Your task to perform on an android device: check data usage Image 0: 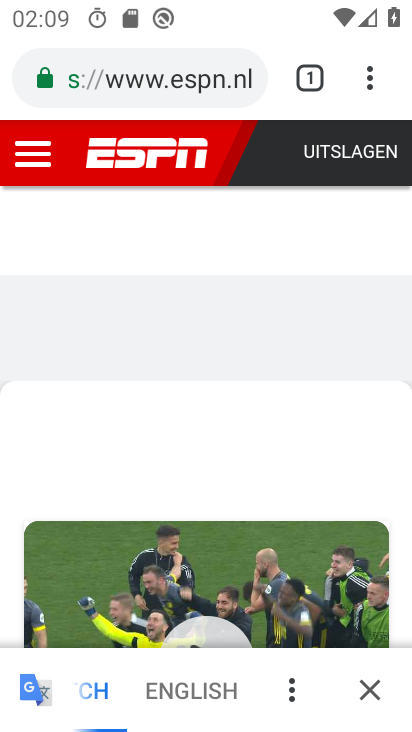
Step 0: press home button
Your task to perform on an android device: check data usage Image 1: 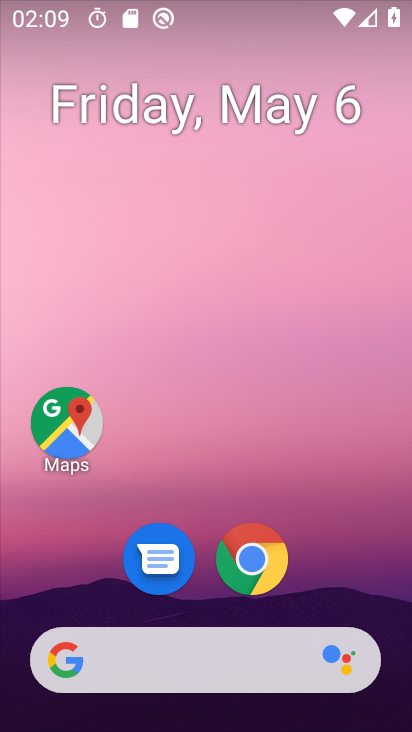
Step 1: drag from (246, 620) to (231, 3)
Your task to perform on an android device: check data usage Image 2: 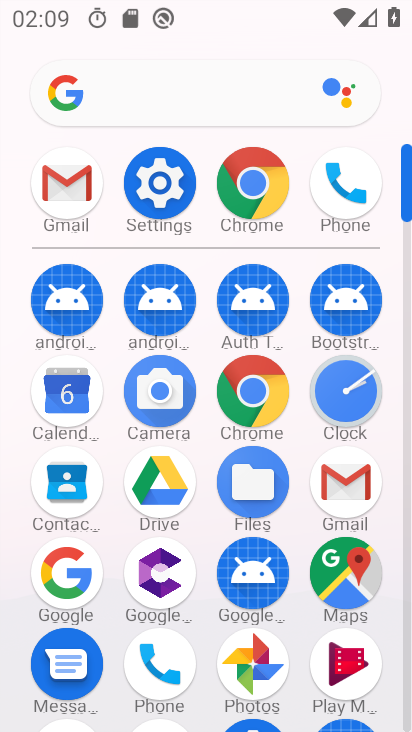
Step 2: click (156, 184)
Your task to perform on an android device: check data usage Image 3: 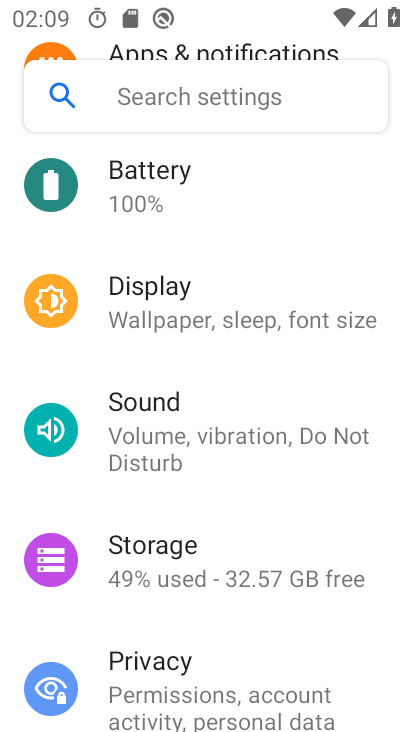
Step 3: drag from (199, 194) to (199, 519)
Your task to perform on an android device: check data usage Image 4: 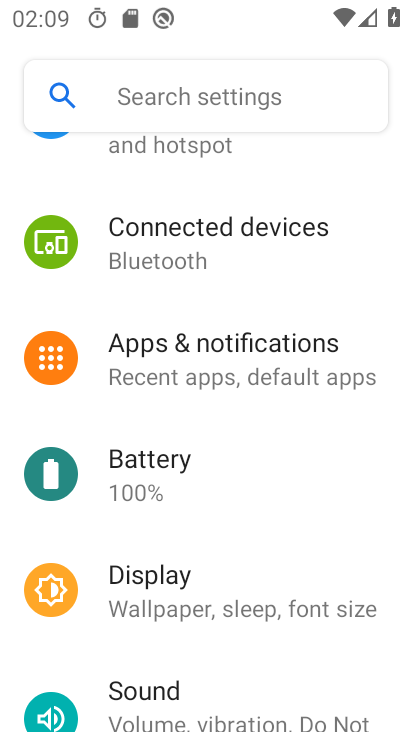
Step 4: drag from (260, 212) to (278, 453)
Your task to perform on an android device: check data usage Image 5: 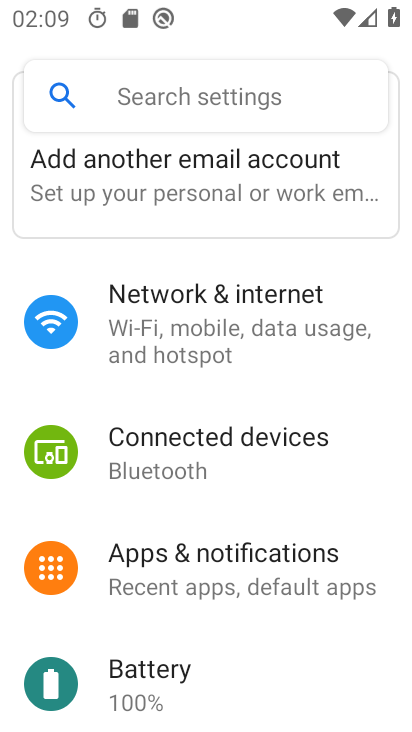
Step 5: click (277, 322)
Your task to perform on an android device: check data usage Image 6: 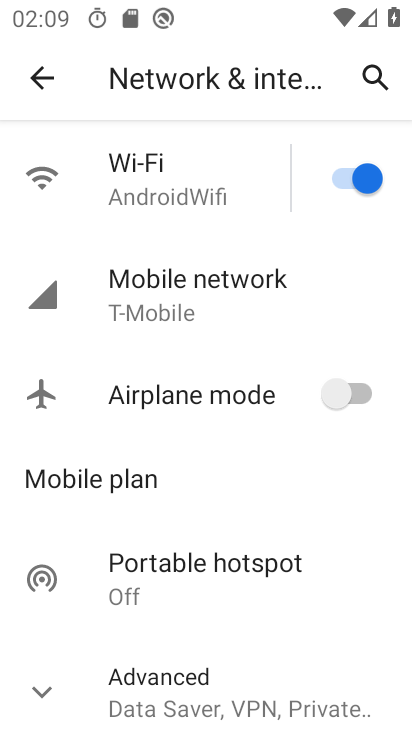
Step 6: click (212, 292)
Your task to perform on an android device: check data usage Image 7: 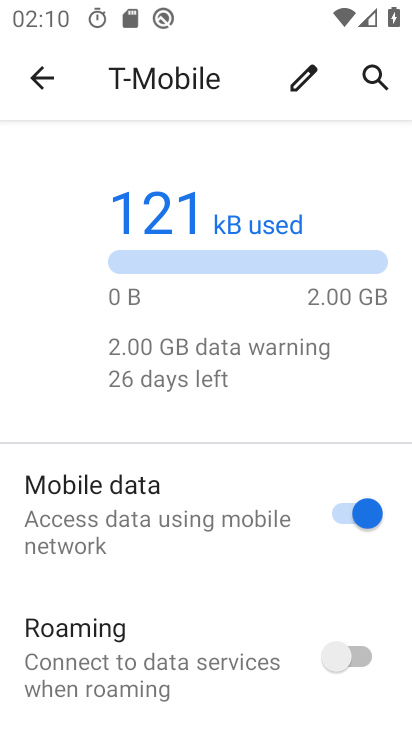
Step 7: drag from (197, 681) to (235, 192)
Your task to perform on an android device: check data usage Image 8: 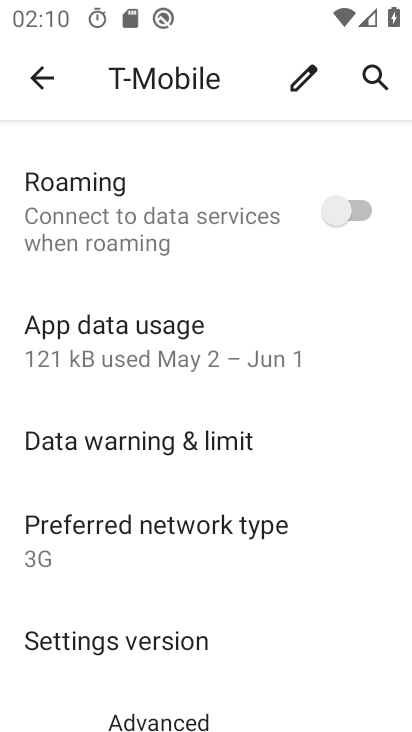
Step 8: click (260, 333)
Your task to perform on an android device: check data usage Image 9: 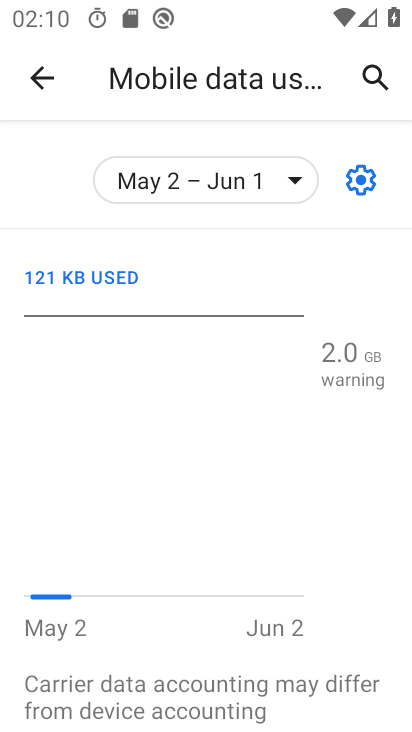
Step 9: task complete